Your task to perform on an android device: Open Wikipedia Image 0: 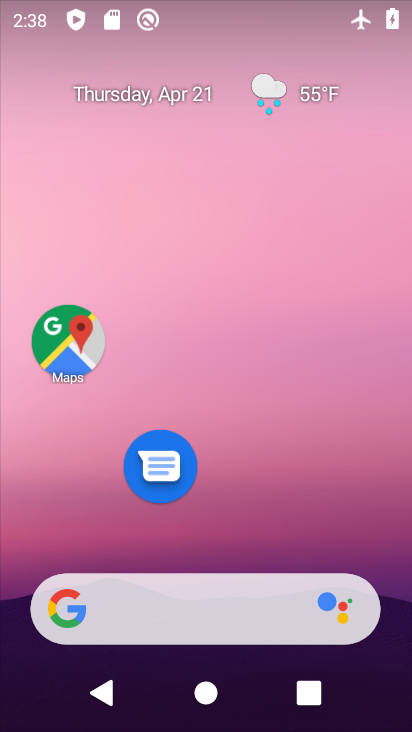
Step 0: drag from (291, 568) to (261, 55)
Your task to perform on an android device: Open Wikipedia Image 1: 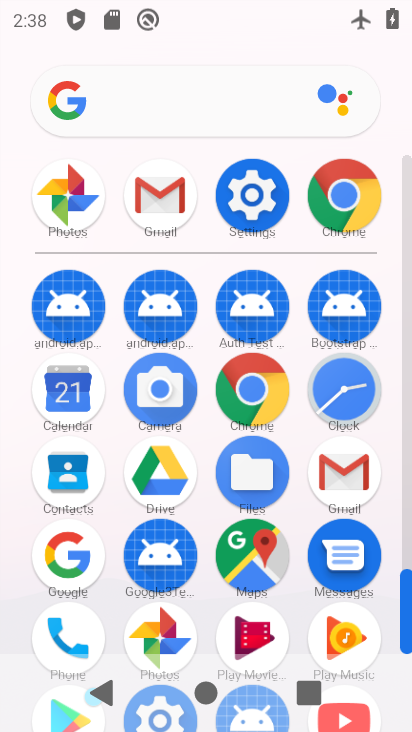
Step 1: click (244, 187)
Your task to perform on an android device: Open Wikipedia Image 2: 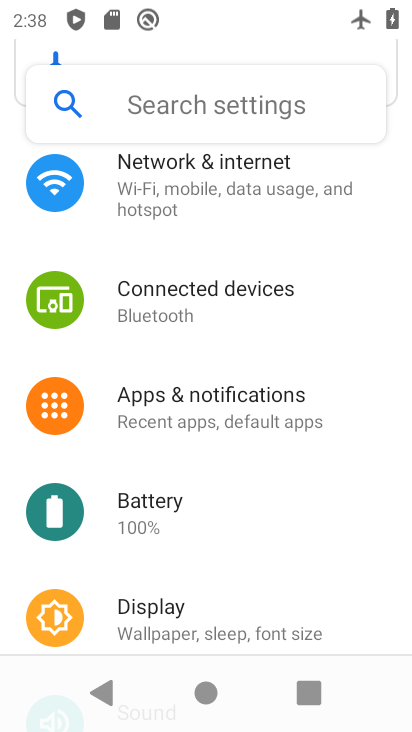
Step 2: press home button
Your task to perform on an android device: Open Wikipedia Image 3: 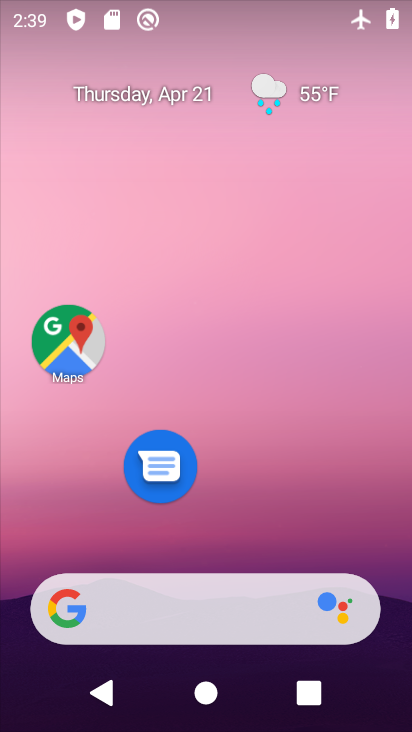
Step 3: drag from (252, 572) to (207, 26)
Your task to perform on an android device: Open Wikipedia Image 4: 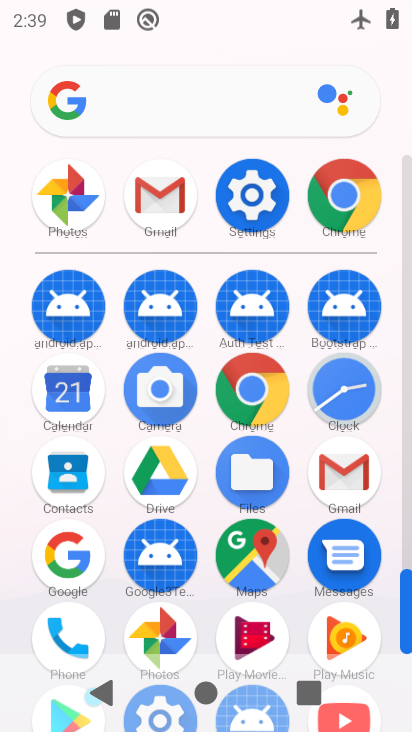
Step 4: click (240, 396)
Your task to perform on an android device: Open Wikipedia Image 5: 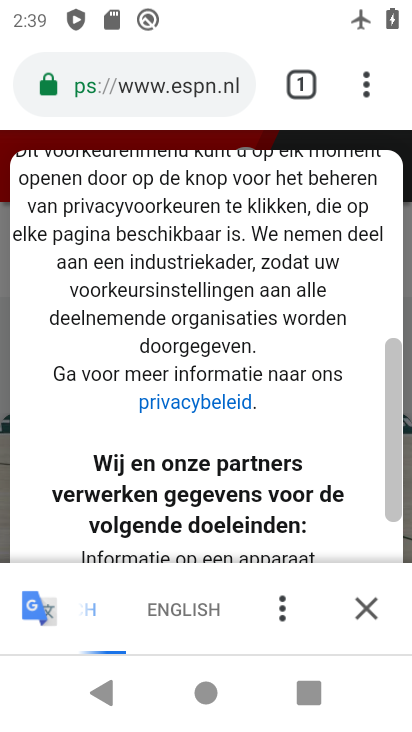
Step 5: click (153, 91)
Your task to perform on an android device: Open Wikipedia Image 6: 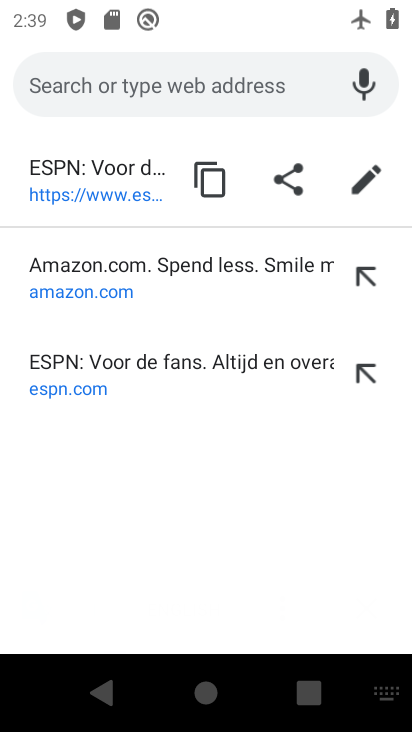
Step 6: type "wikipedia"
Your task to perform on an android device: Open Wikipedia Image 7: 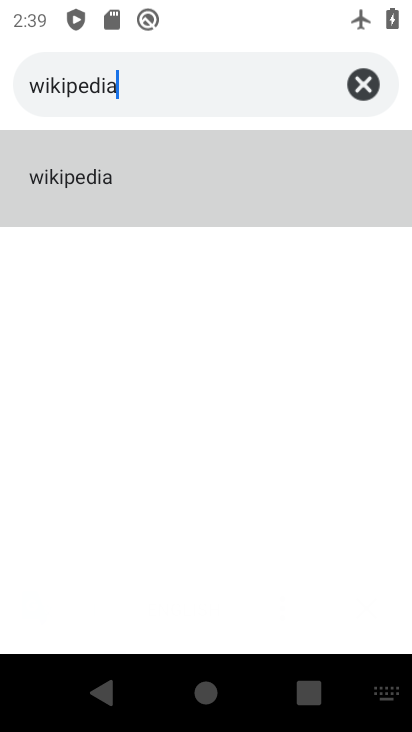
Step 7: click (135, 181)
Your task to perform on an android device: Open Wikipedia Image 8: 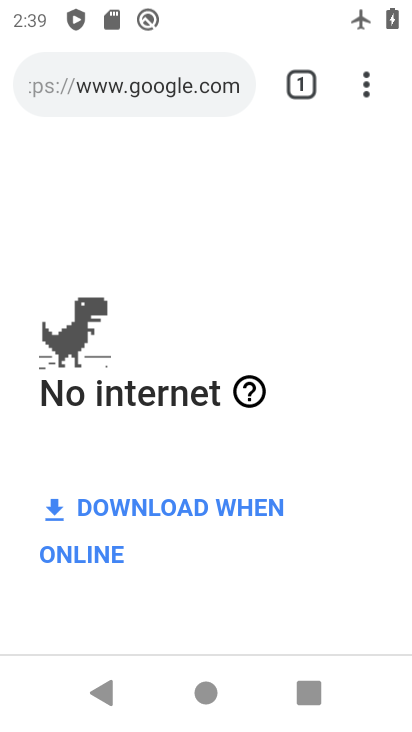
Step 8: task complete